Your task to perform on an android device: Turn off the flashlight Image 0: 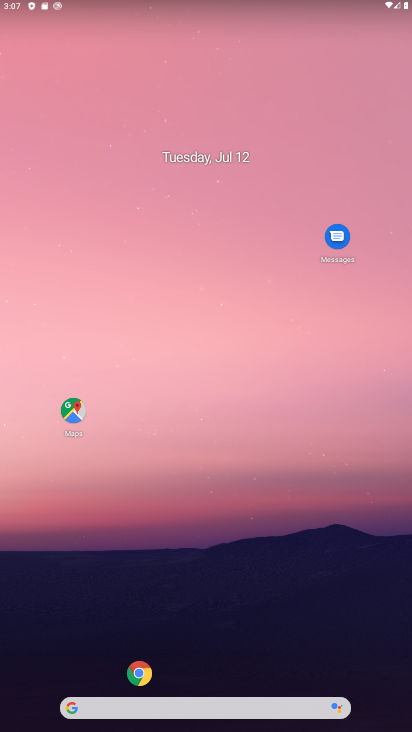
Step 0: click (88, 703)
Your task to perform on an android device: Turn off the flashlight Image 1: 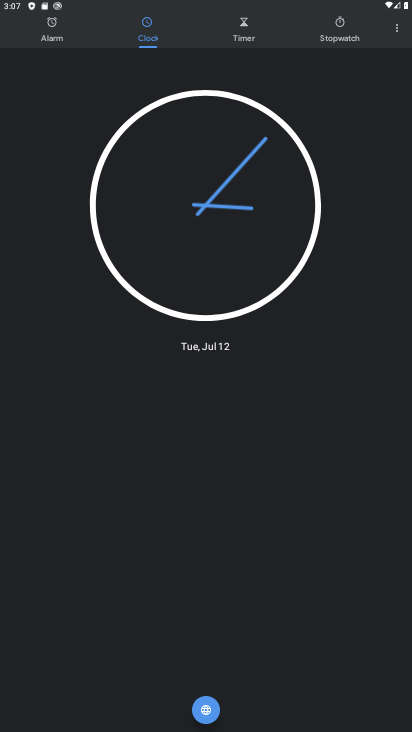
Step 1: press home button
Your task to perform on an android device: Turn off the flashlight Image 2: 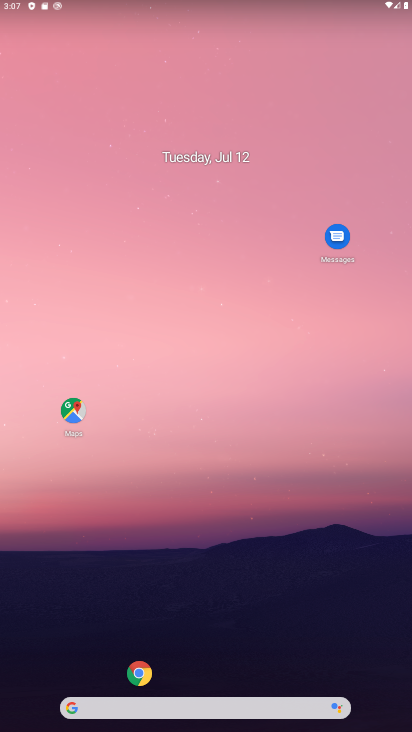
Step 2: drag from (222, 244) to (192, 712)
Your task to perform on an android device: Turn off the flashlight Image 3: 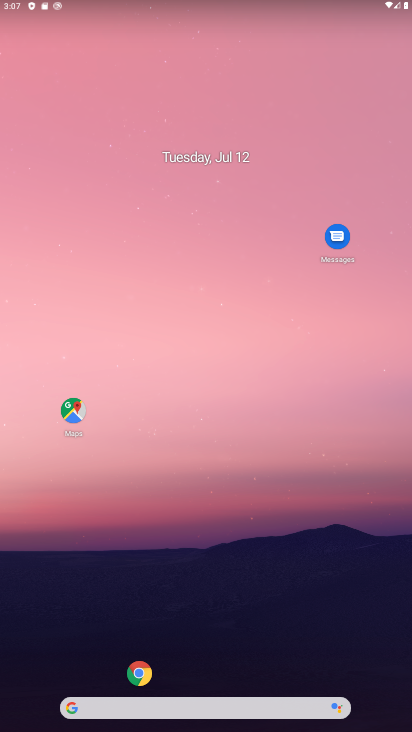
Step 3: drag from (111, 0) to (82, 472)
Your task to perform on an android device: Turn off the flashlight Image 4: 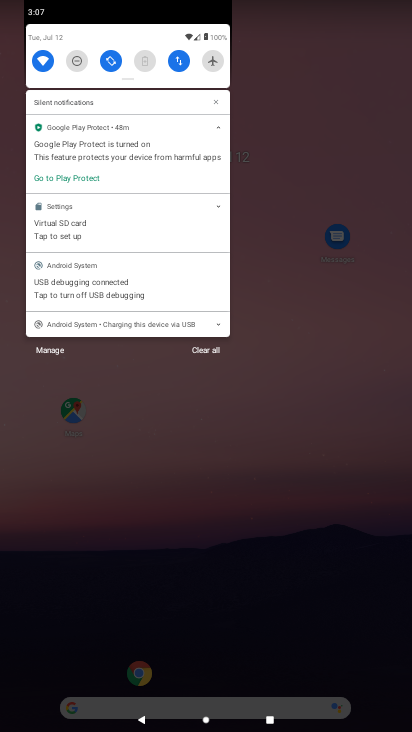
Step 4: drag from (93, 90) to (104, 717)
Your task to perform on an android device: Turn off the flashlight Image 5: 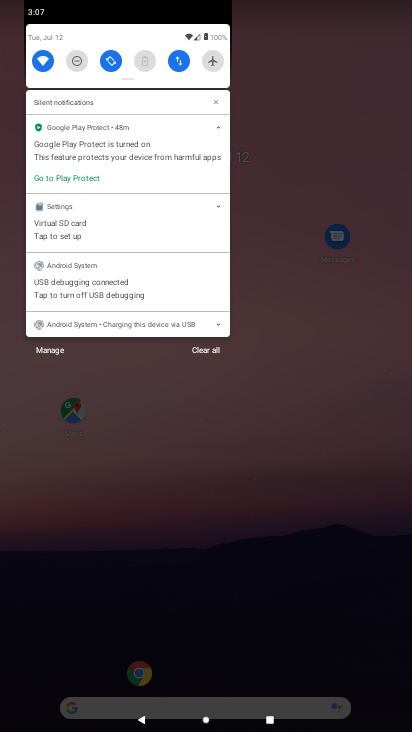
Step 5: click (119, 76)
Your task to perform on an android device: Turn off the flashlight Image 6: 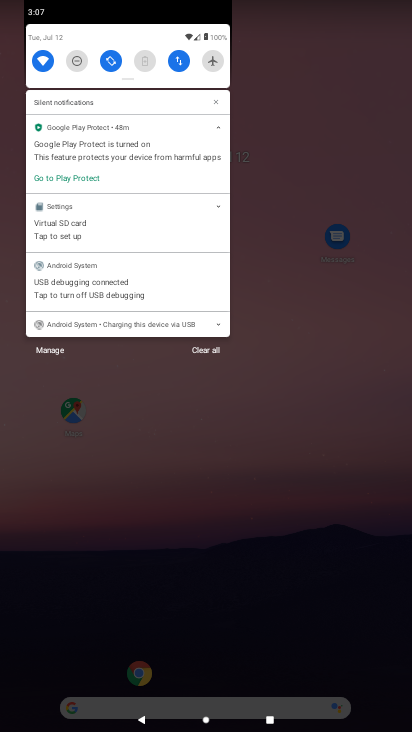
Step 6: drag from (129, 99) to (129, 493)
Your task to perform on an android device: Turn off the flashlight Image 7: 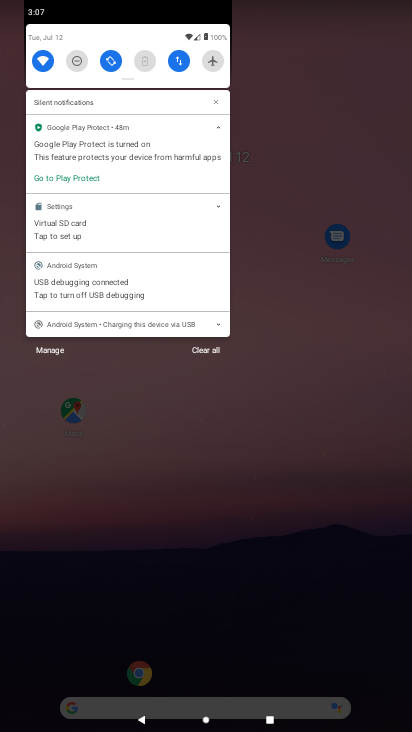
Step 7: click (194, 351)
Your task to perform on an android device: Turn off the flashlight Image 8: 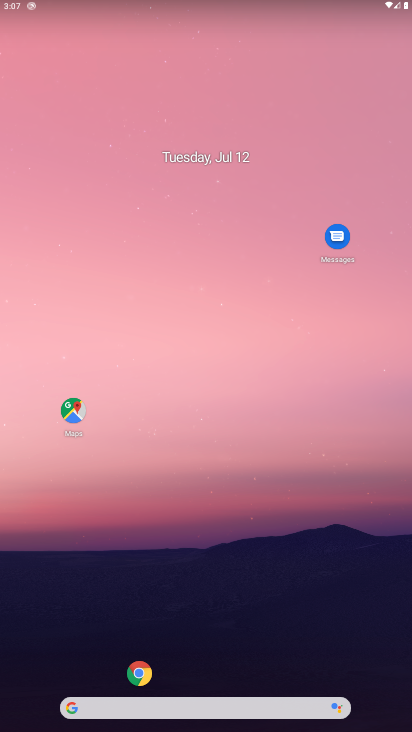
Step 8: task complete